Your task to perform on an android device: see tabs open on other devices in the chrome app Image 0: 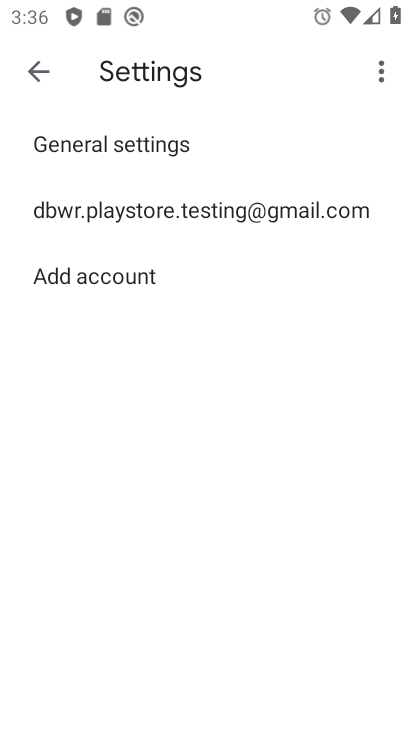
Step 0: press home button
Your task to perform on an android device: see tabs open on other devices in the chrome app Image 1: 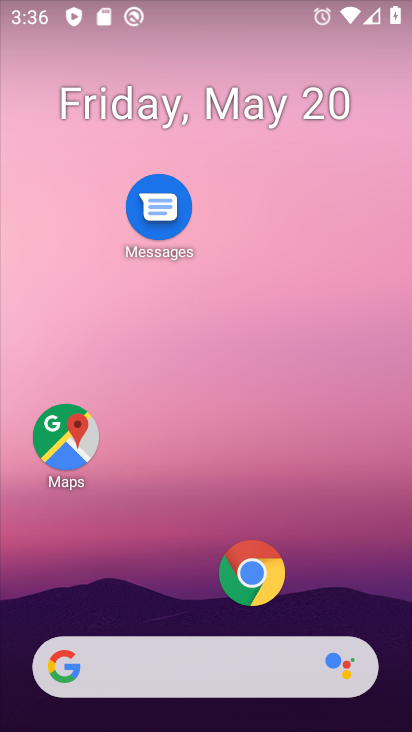
Step 1: click (247, 564)
Your task to perform on an android device: see tabs open on other devices in the chrome app Image 2: 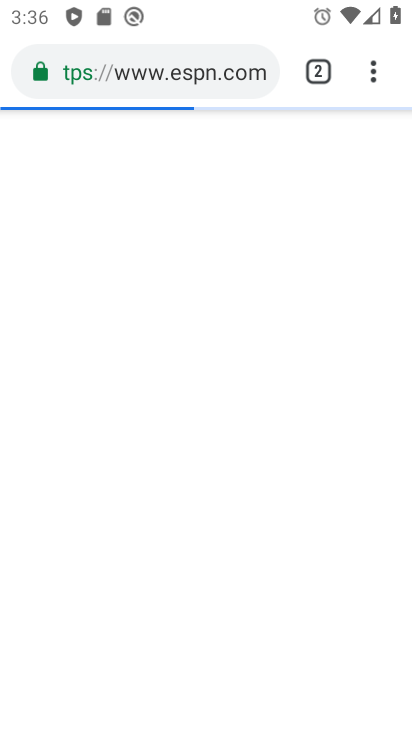
Step 2: click (313, 64)
Your task to perform on an android device: see tabs open on other devices in the chrome app Image 3: 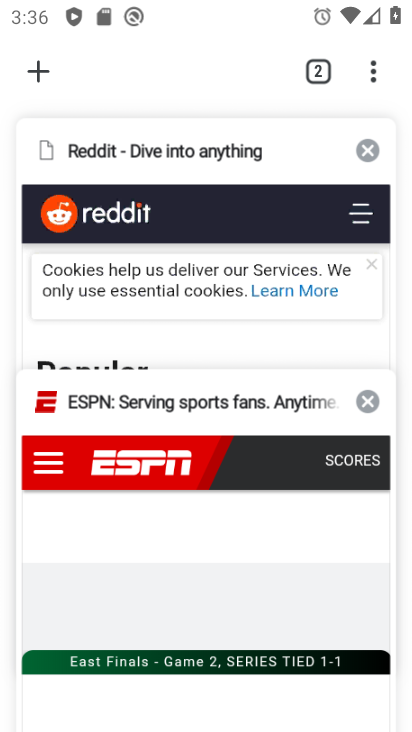
Step 3: task complete